Your task to perform on an android device: open a bookmark in the chrome app Image 0: 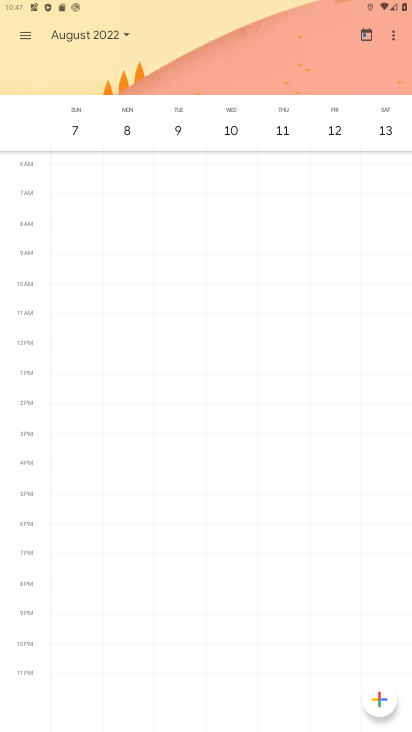
Step 0: press home button
Your task to perform on an android device: open a bookmark in the chrome app Image 1: 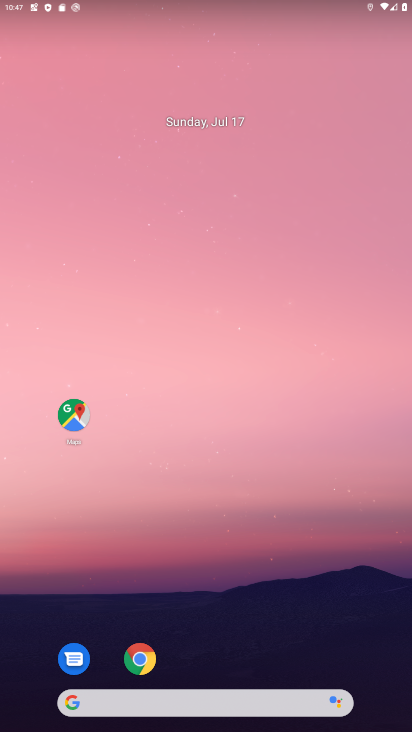
Step 1: drag from (238, 646) to (215, 101)
Your task to perform on an android device: open a bookmark in the chrome app Image 2: 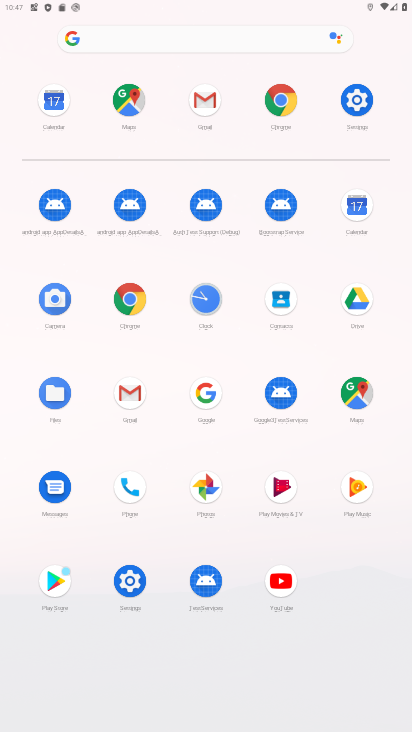
Step 2: click (127, 299)
Your task to perform on an android device: open a bookmark in the chrome app Image 3: 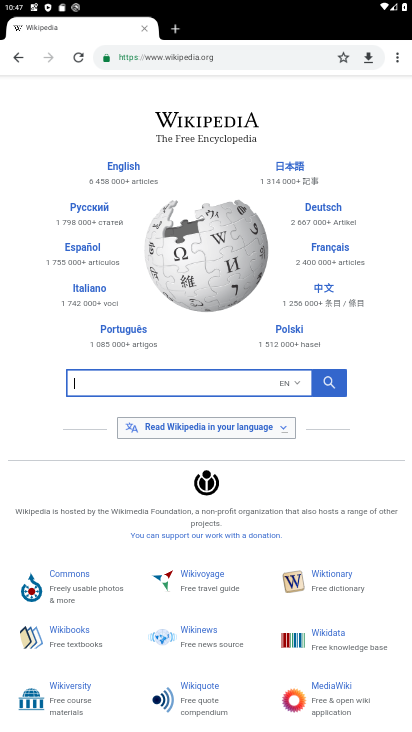
Step 3: drag from (394, 54) to (289, 150)
Your task to perform on an android device: open a bookmark in the chrome app Image 4: 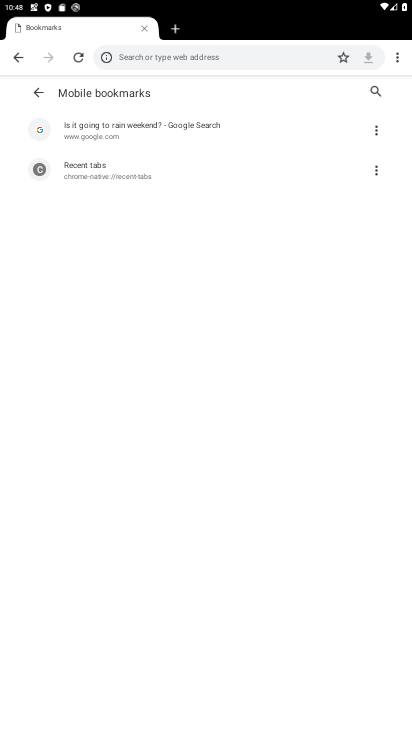
Step 4: click (172, 123)
Your task to perform on an android device: open a bookmark in the chrome app Image 5: 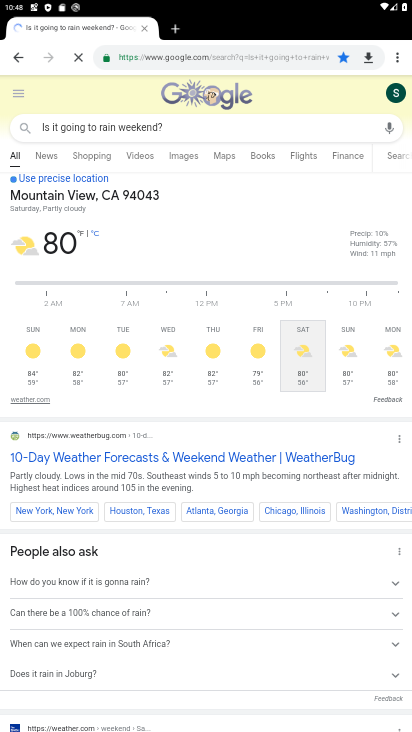
Step 5: task complete